Your task to perform on an android device: Add logitech g933 to the cart on walmart, then select checkout. Image 0: 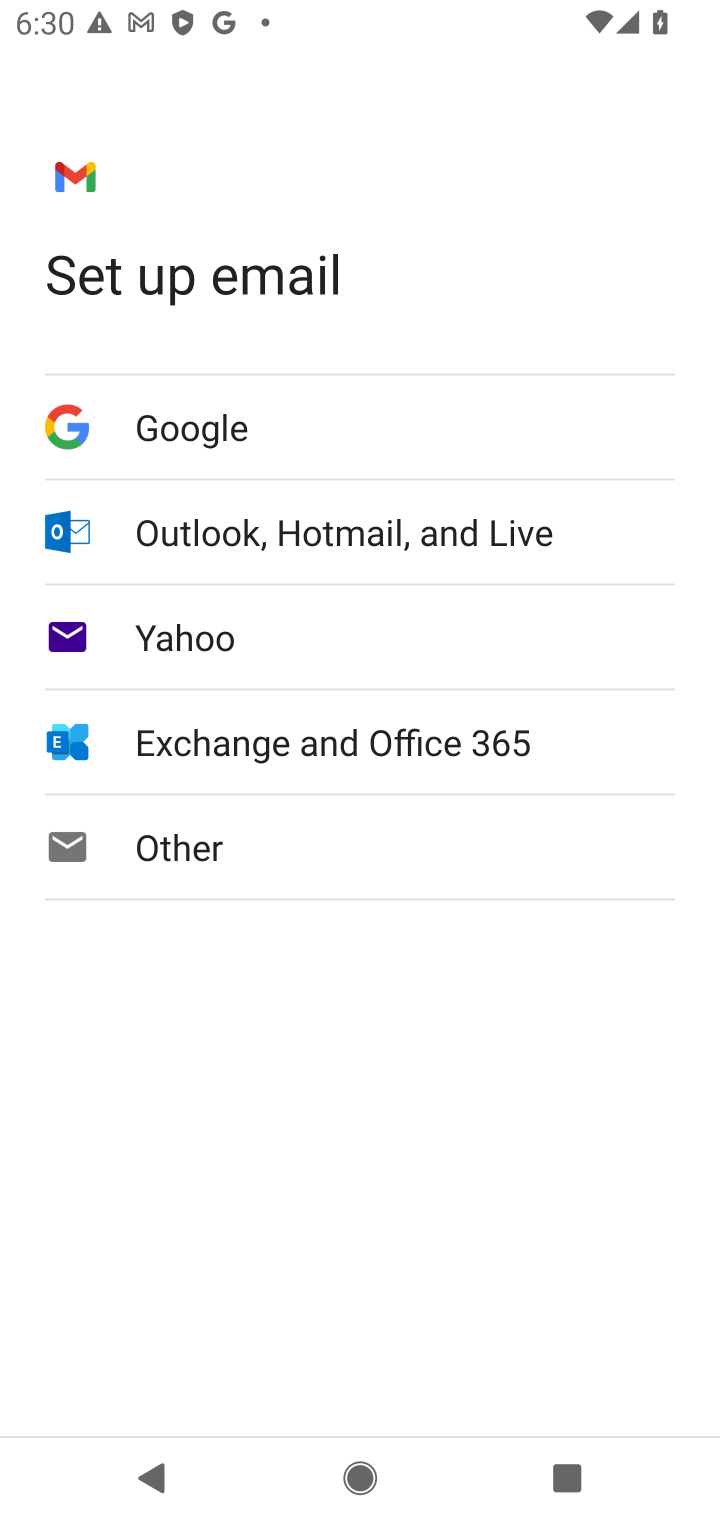
Step 0: press home button
Your task to perform on an android device: Add logitech g933 to the cart on walmart, then select checkout. Image 1: 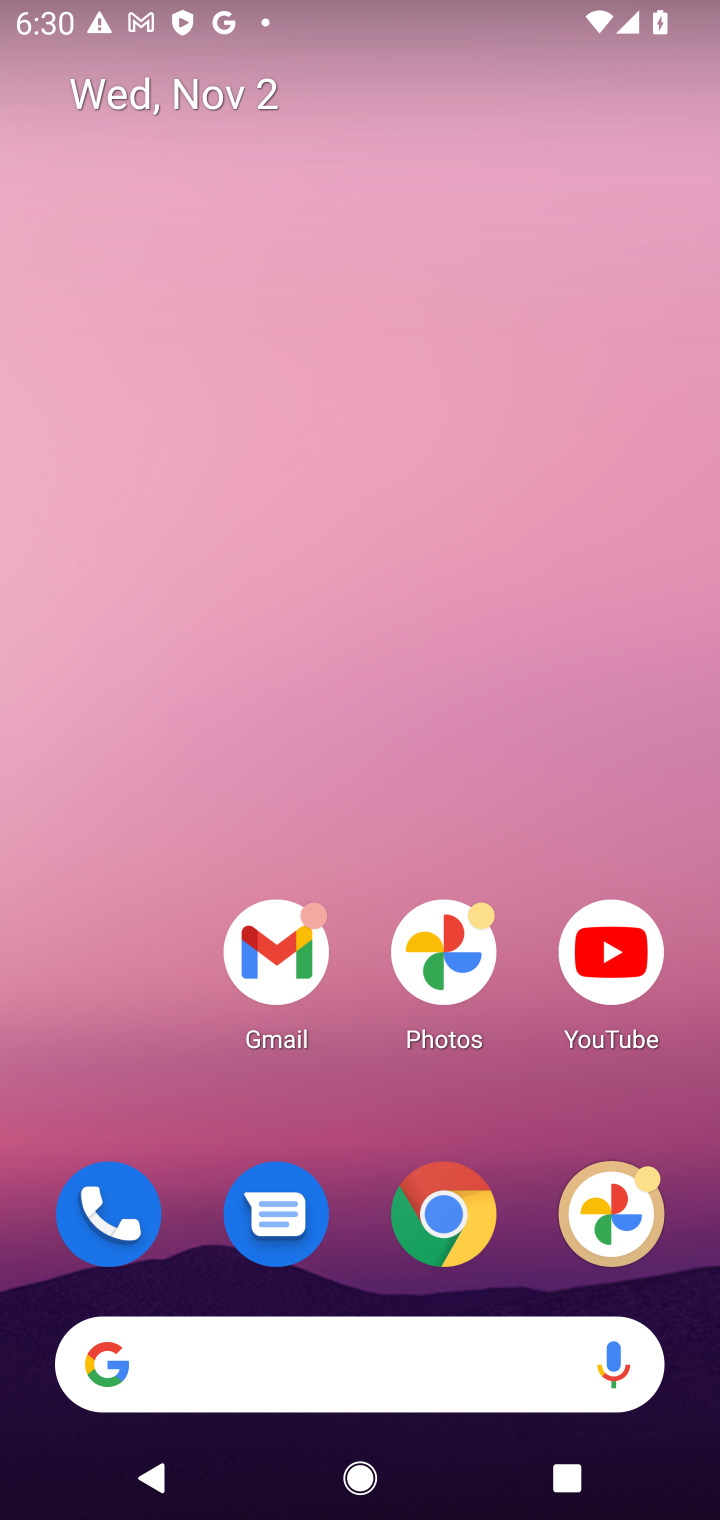
Step 1: click (446, 1218)
Your task to perform on an android device: Add logitech g933 to the cart on walmart, then select checkout. Image 2: 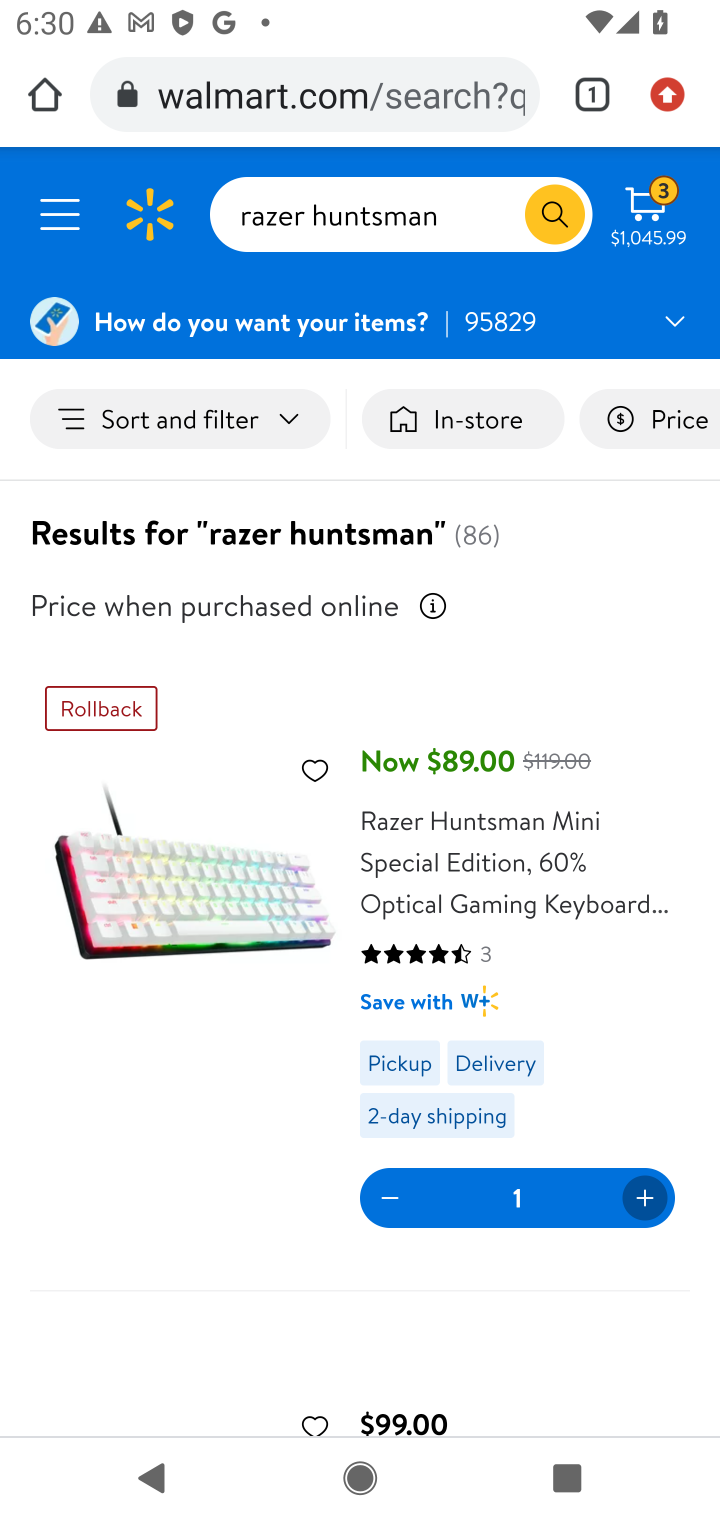
Step 2: click (374, 96)
Your task to perform on an android device: Add logitech g933 to the cart on walmart, then select checkout. Image 3: 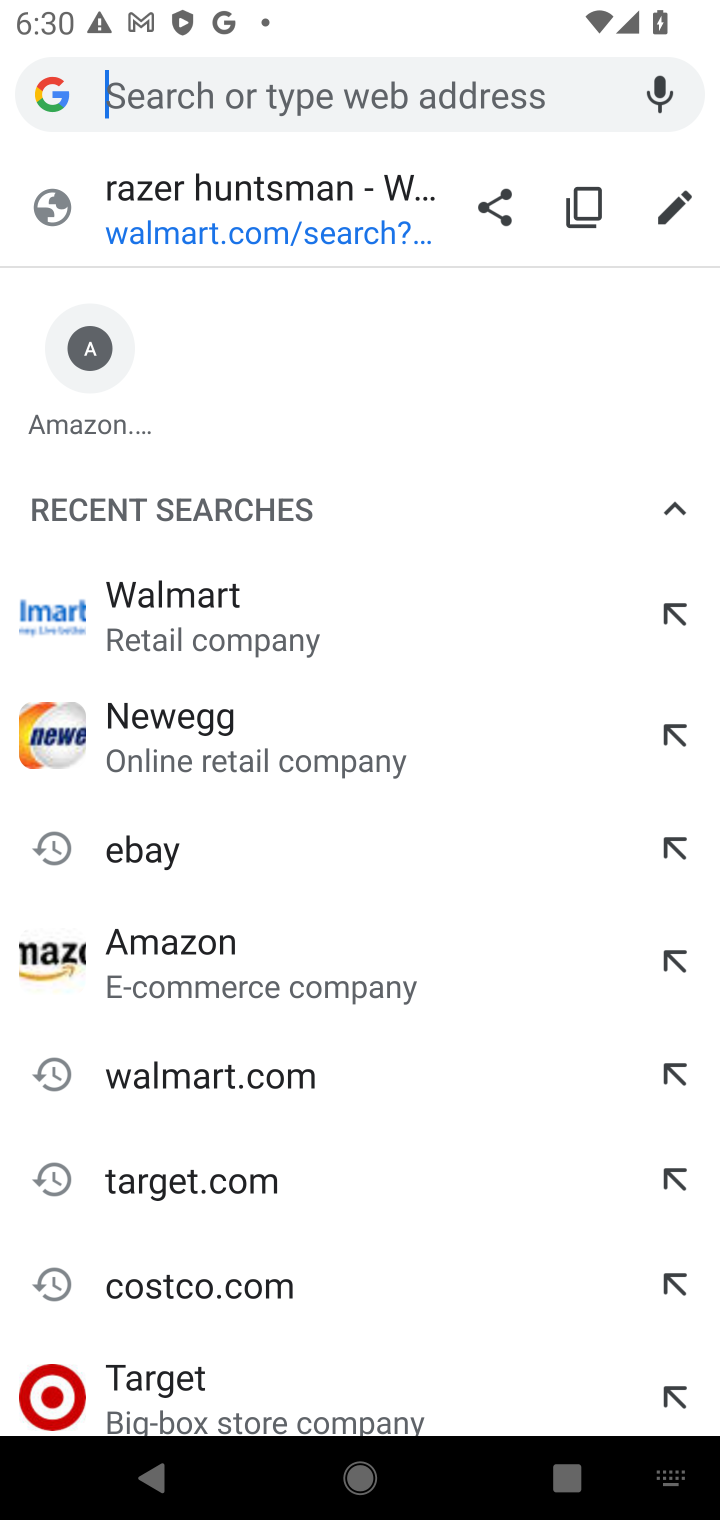
Step 3: type "walmart"
Your task to perform on an android device: Add logitech g933 to the cart on walmart, then select checkout. Image 4: 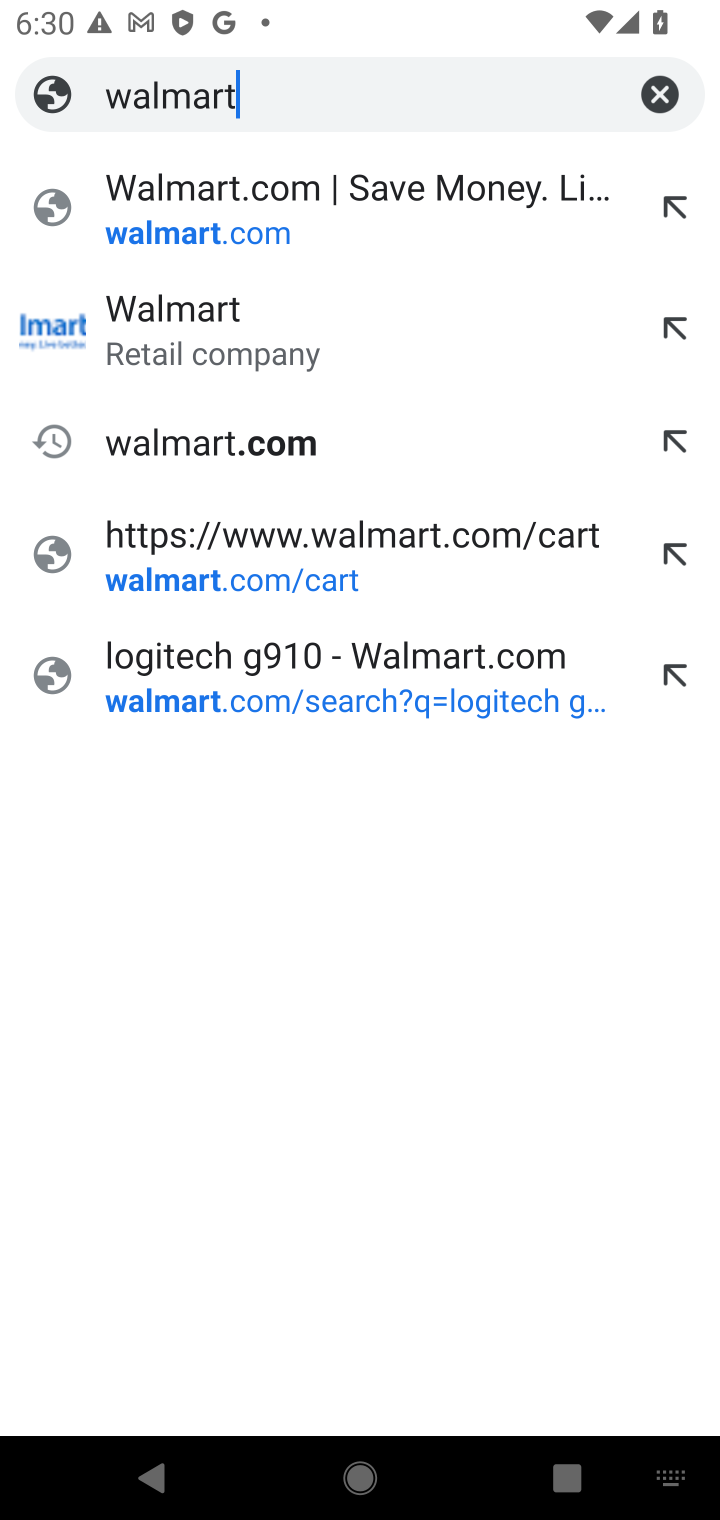
Step 4: click (226, 325)
Your task to perform on an android device: Add logitech g933 to the cart on walmart, then select checkout. Image 5: 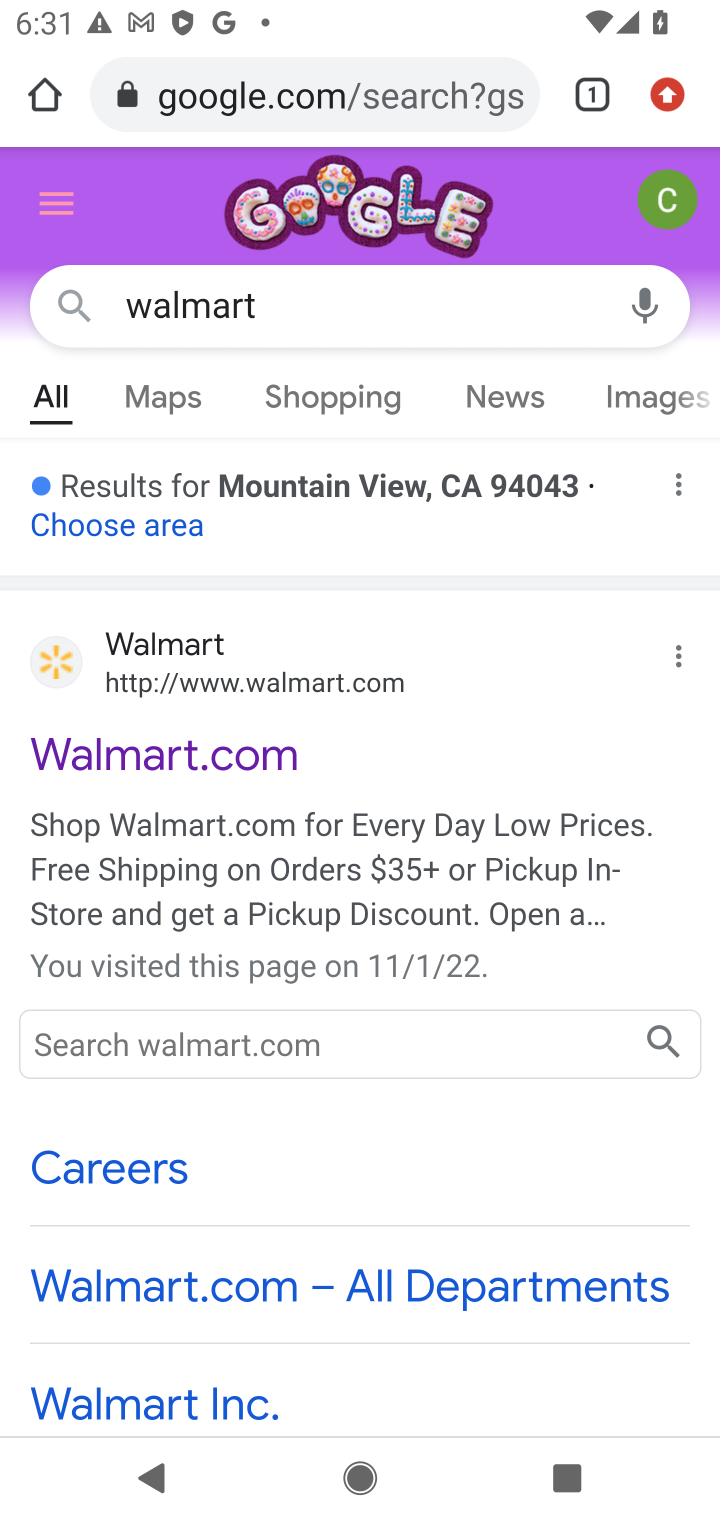
Step 5: click (374, 765)
Your task to perform on an android device: Add logitech g933 to the cart on walmart, then select checkout. Image 6: 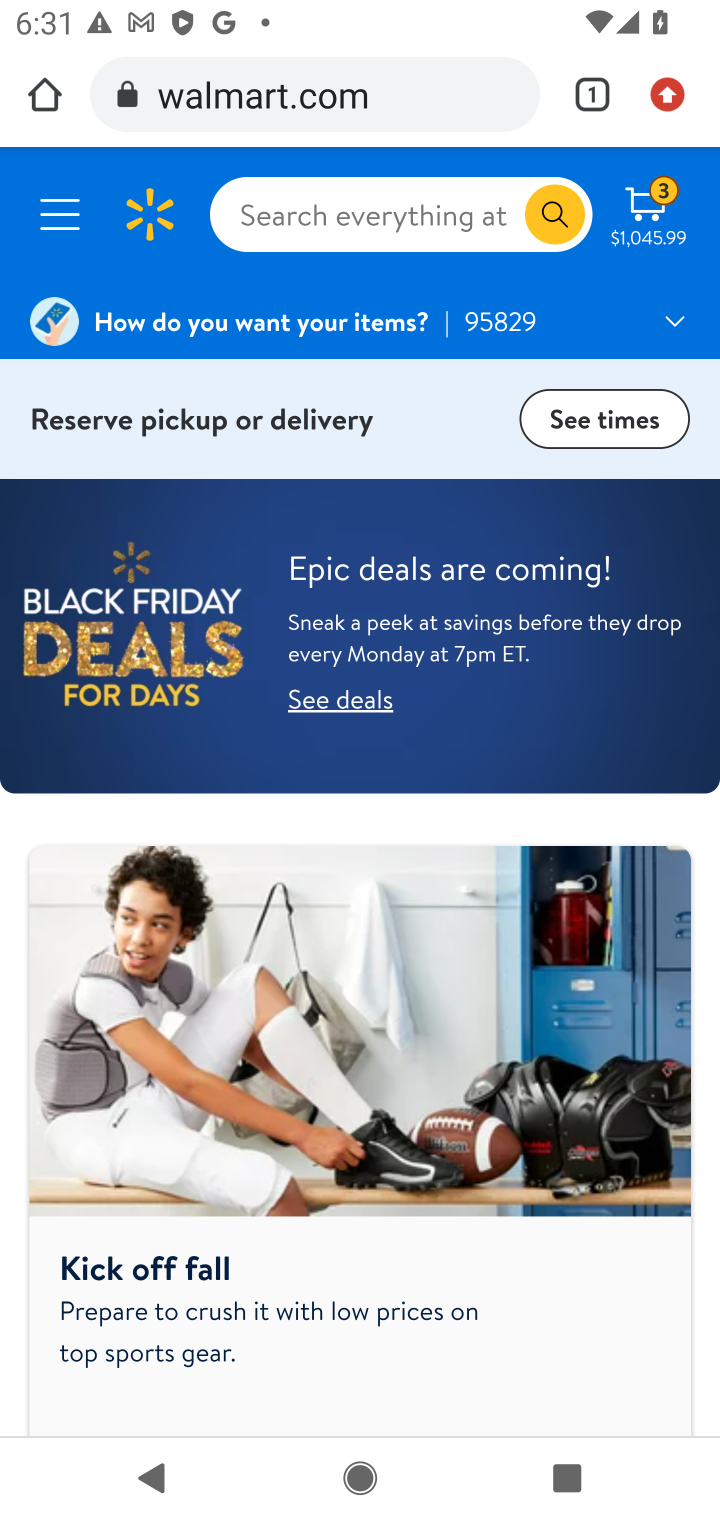
Step 6: click (436, 211)
Your task to perform on an android device: Add logitech g933 to the cart on walmart, then select checkout. Image 7: 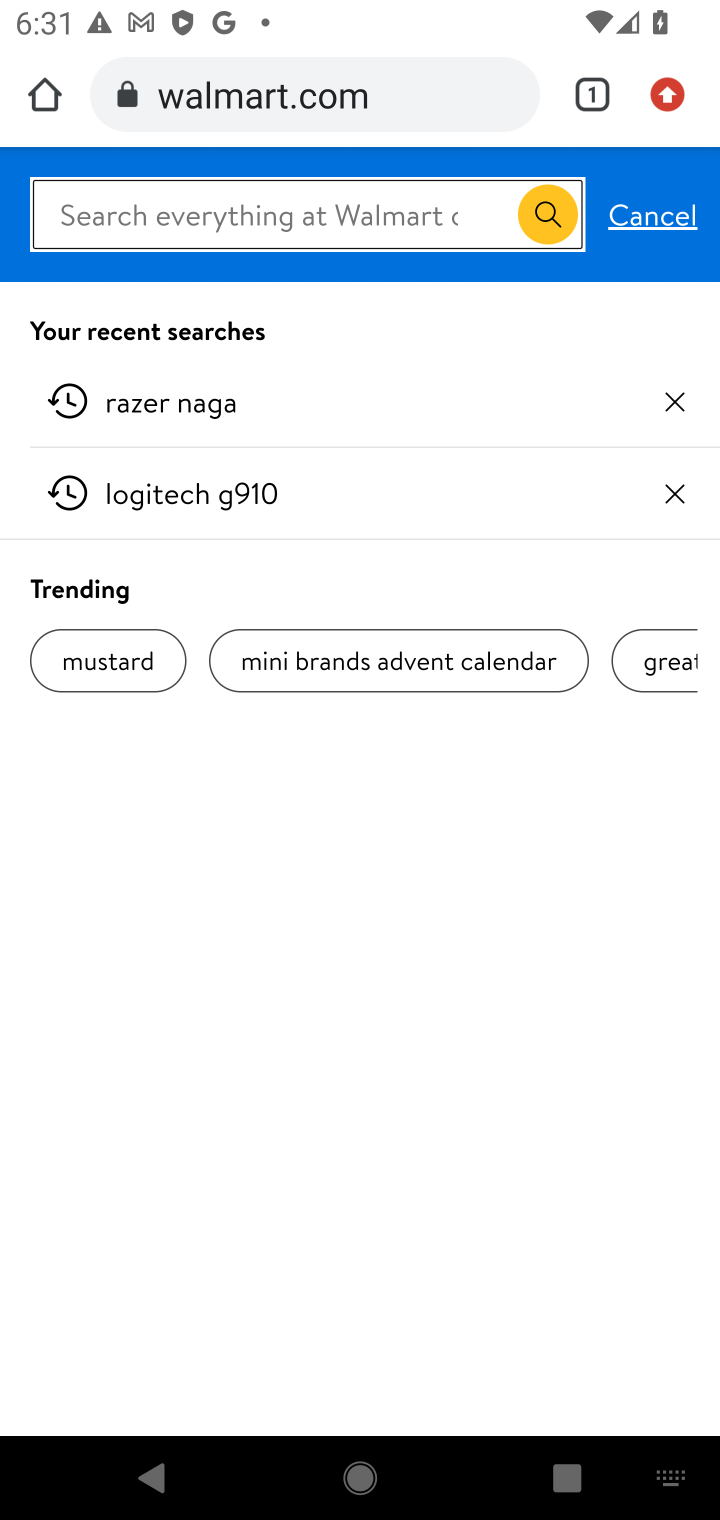
Step 7: type "logitech g933"
Your task to perform on an android device: Add logitech g933 to the cart on walmart, then select checkout. Image 8: 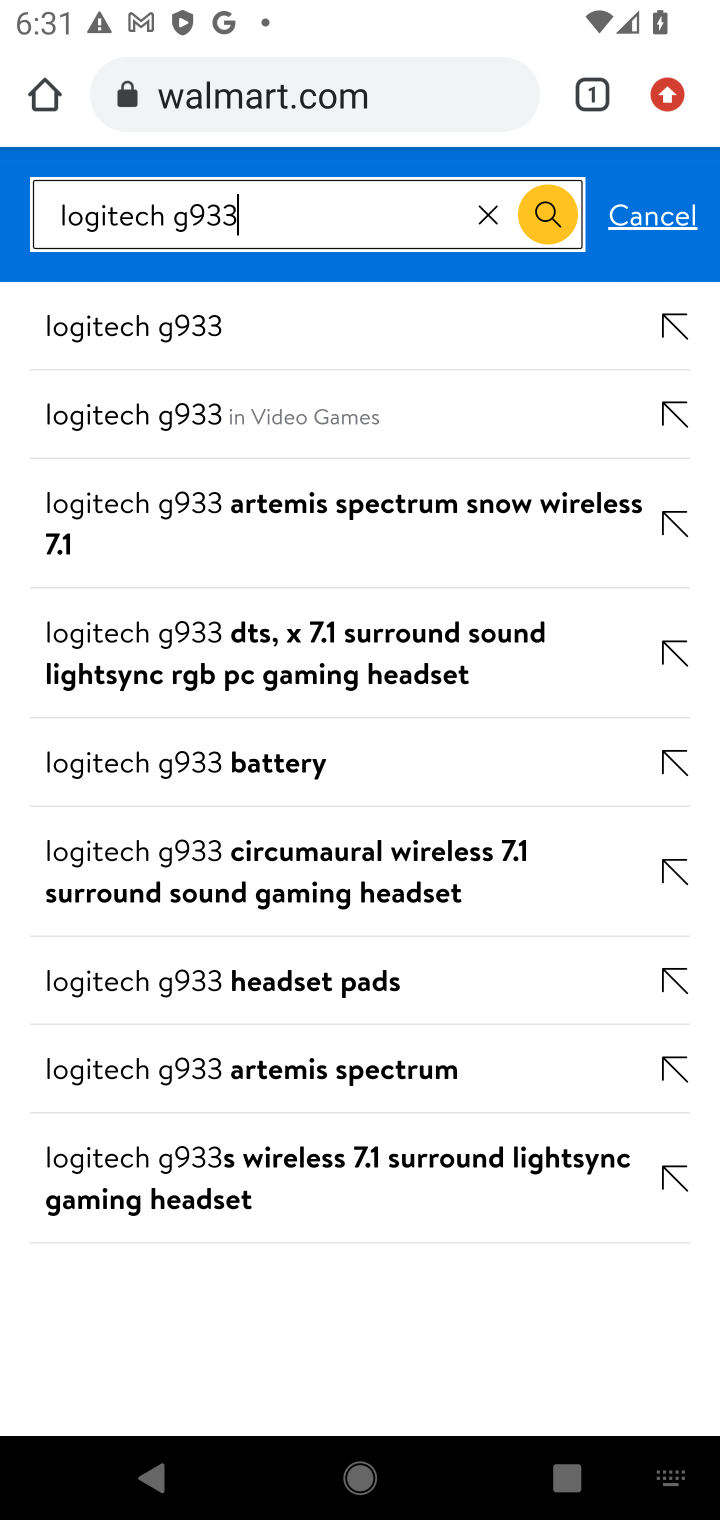
Step 8: click (221, 337)
Your task to perform on an android device: Add logitech g933 to the cart on walmart, then select checkout. Image 9: 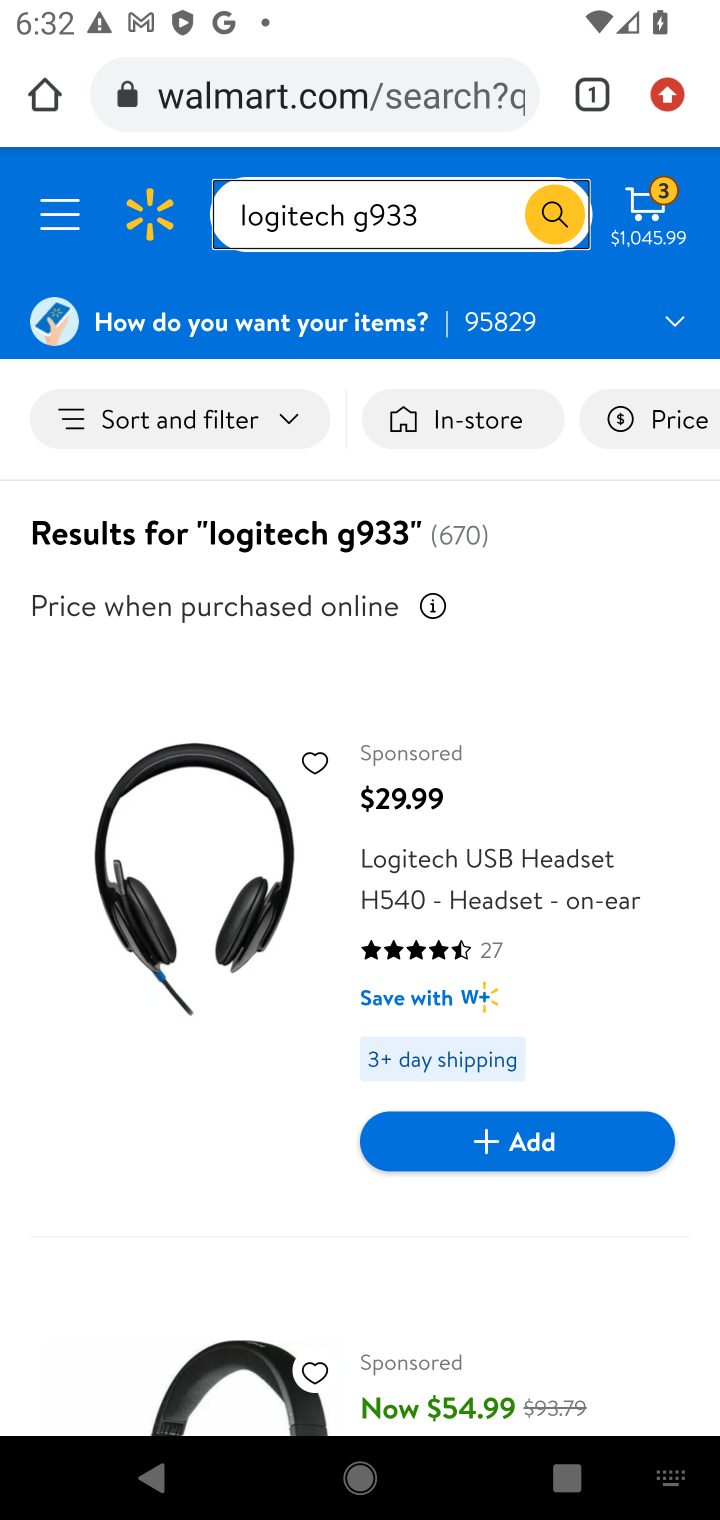
Step 9: click (517, 1141)
Your task to perform on an android device: Add logitech g933 to the cart on walmart, then select checkout. Image 10: 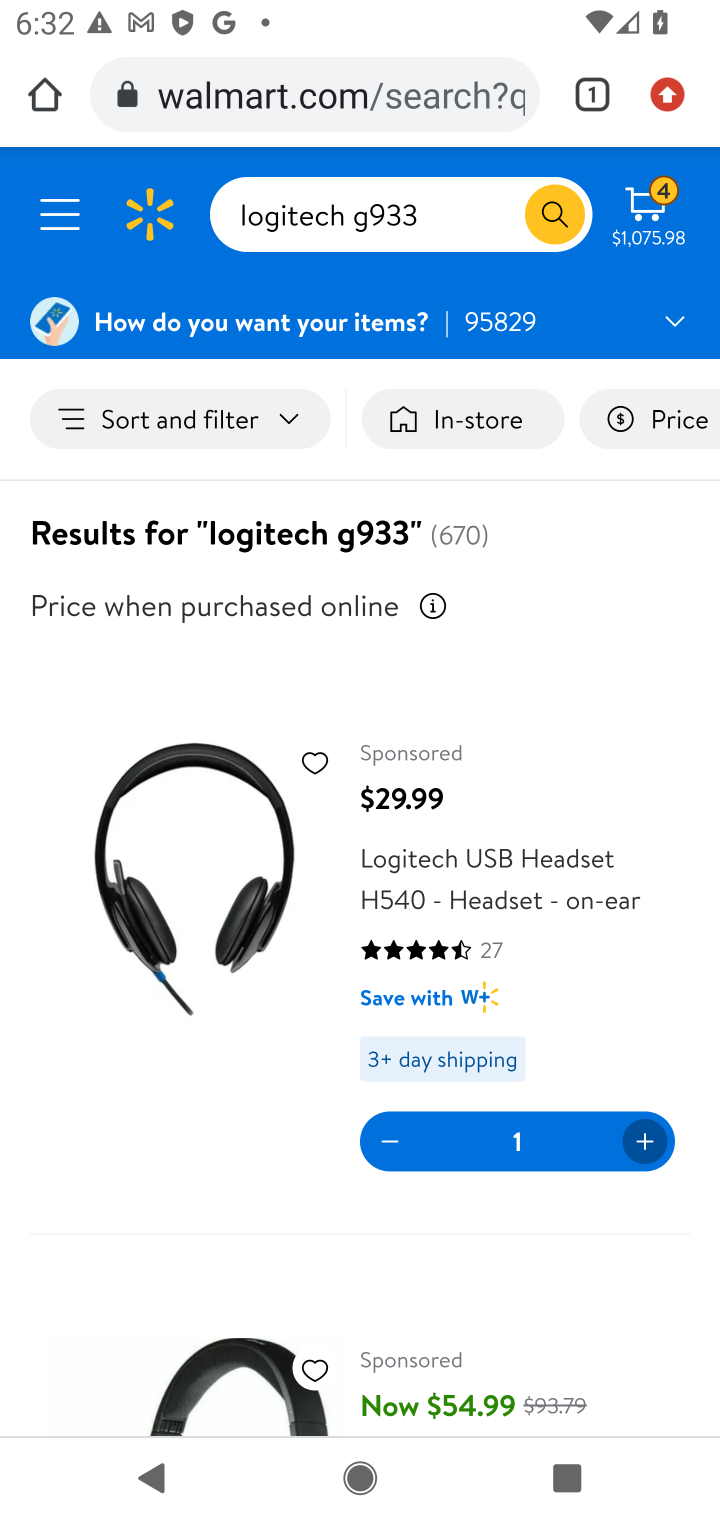
Step 10: click (654, 214)
Your task to perform on an android device: Add logitech g933 to the cart on walmart, then select checkout. Image 11: 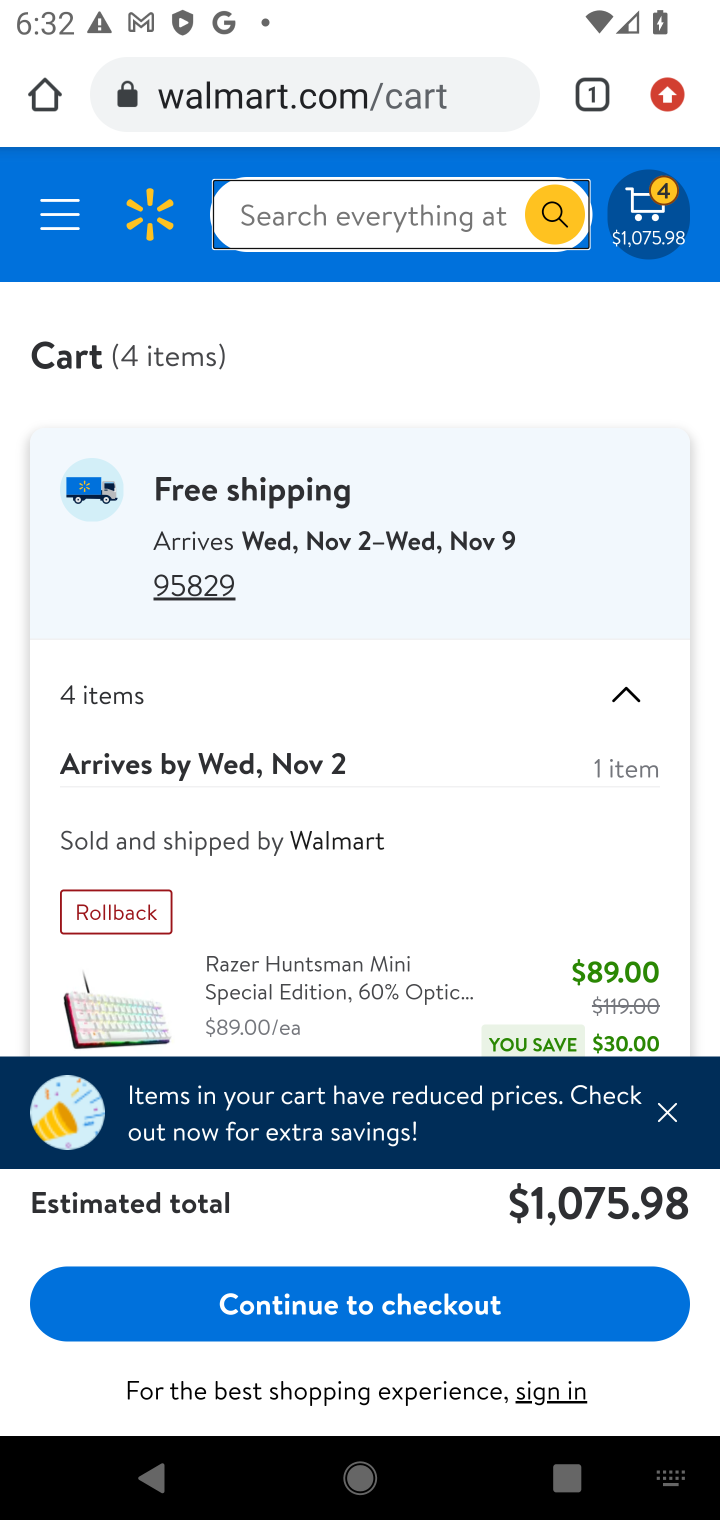
Step 11: click (388, 1318)
Your task to perform on an android device: Add logitech g933 to the cart on walmart, then select checkout. Image 12: 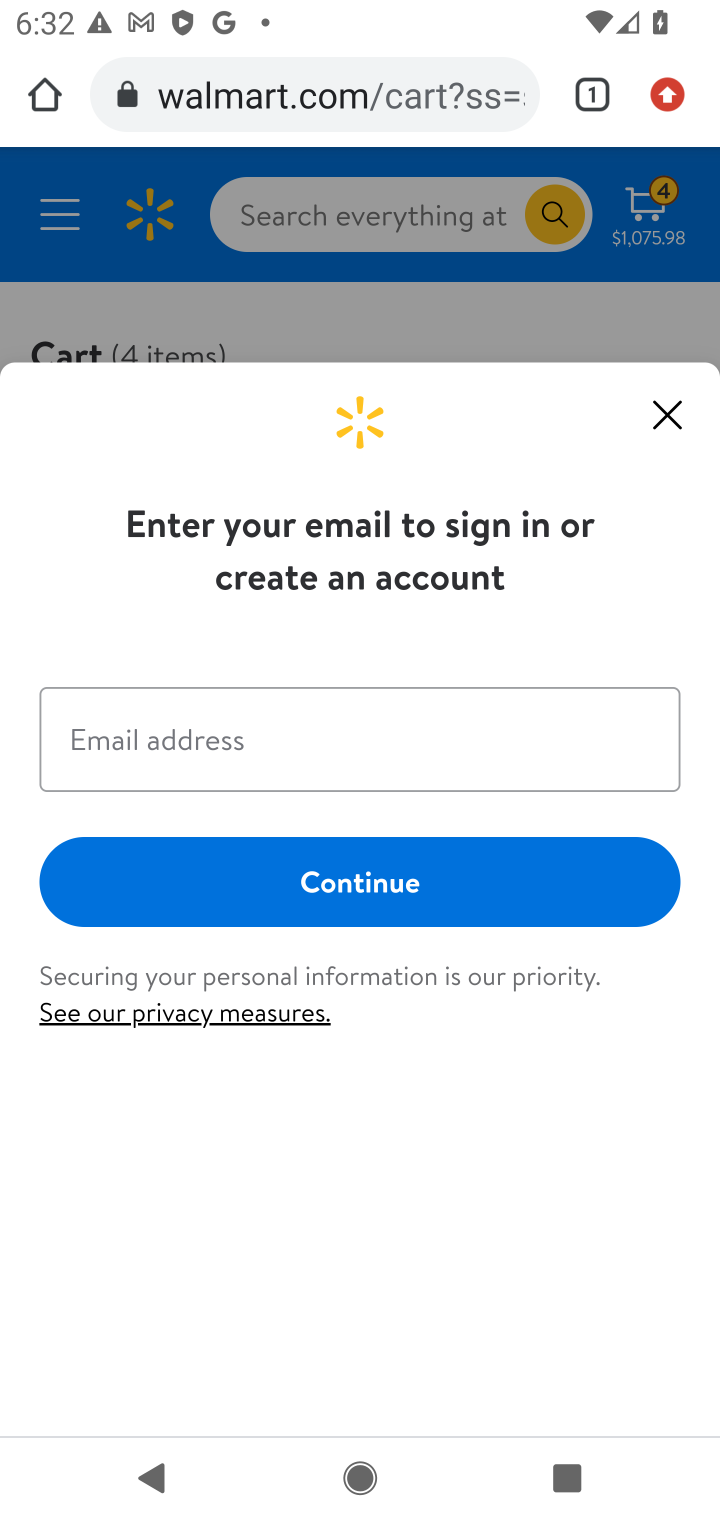
Step 12: task complete